Your task to perform on an android device: change notification settings in the gmail app Image 0: 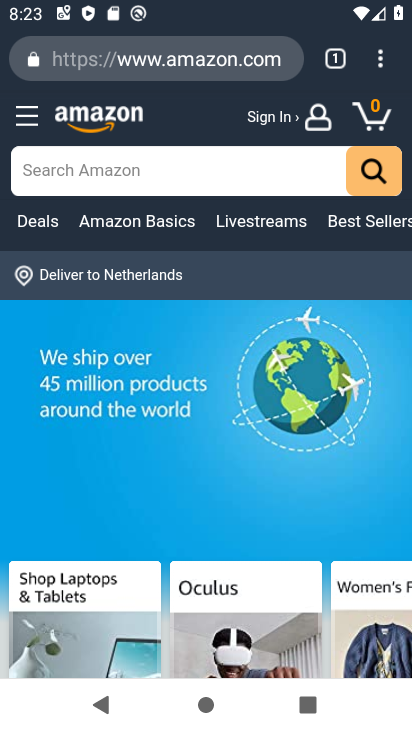
Step 0: drag from (279, 605) to (273, 439)
Your task to perform on an android device: change notification settings in the gmail app Image 1: 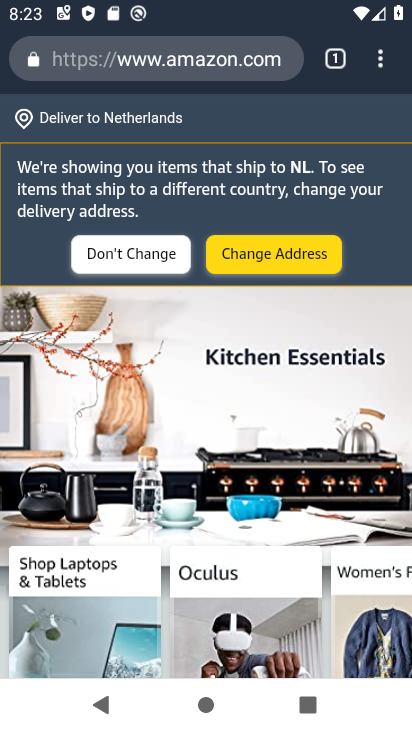
Step 1: press home button
Your task to perform on an android device: change notification settings in the gmail app Image 2: 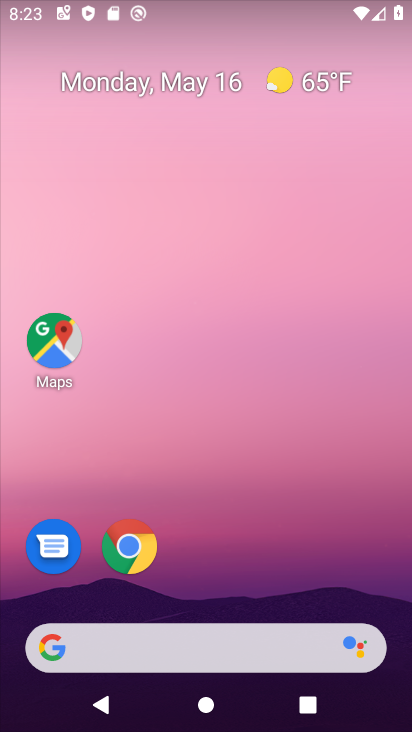
Step 2: drag from (319, 452) to (319, 95)
Your task to perform on an android device: change notification settings in the gmail app Image 3: 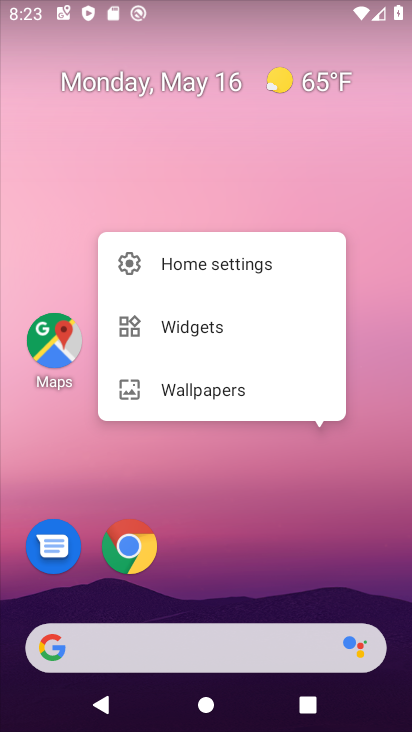
Step 3: click (283, 555)
Your task to perform on an android device: change notification settings in the gmail app Image 4: 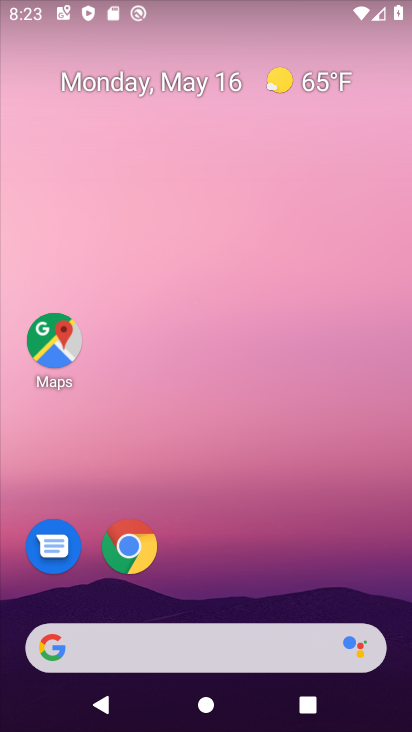
Step 4: drag from (283, 555) to (320, 15)
Your task to perform on an android device: change notification settings in the gmail app Image 5: 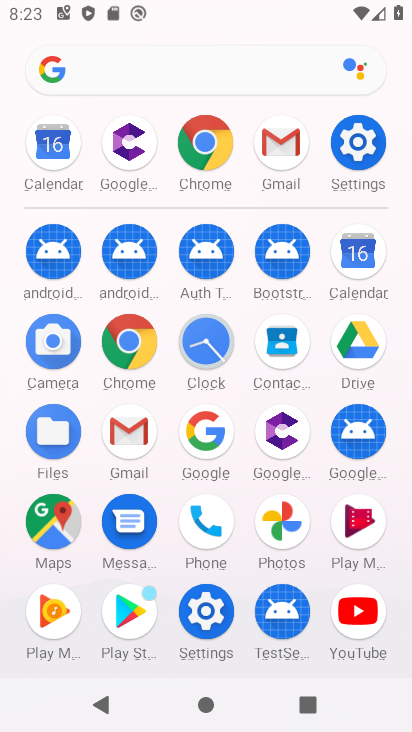
Step 5: click (346, 145)
Your task to perform on an android device: change notification settings in the gmail app Image 6: 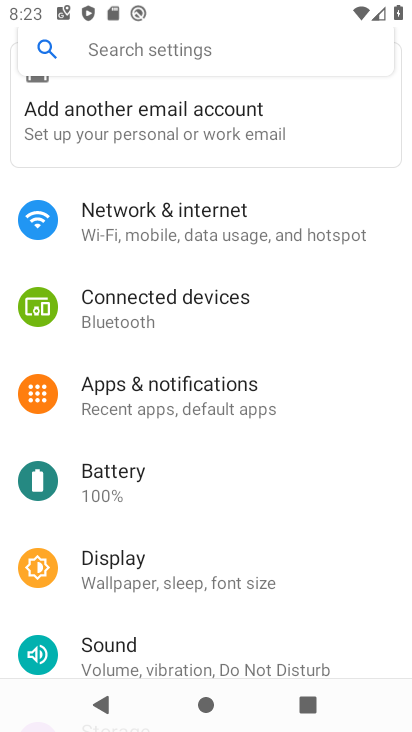
Step 6: press home button
Your task to perform on an android device: change notification settings in the gmail app Image 7: 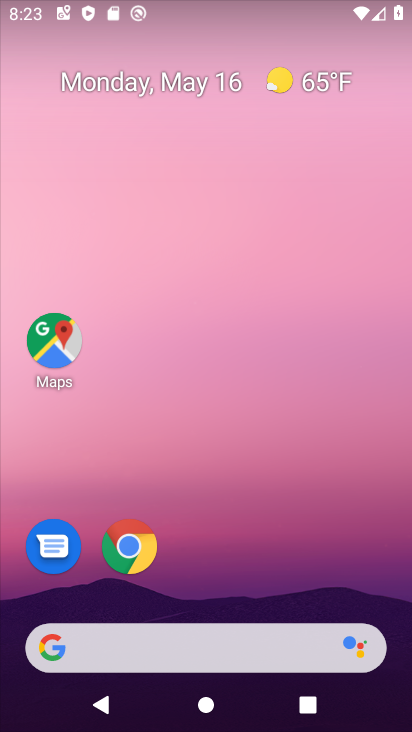
Step 7: drag from (287, 577) to (282, 149)
Your task to perform on an android device: change notification settings in the gmail app Image 8: 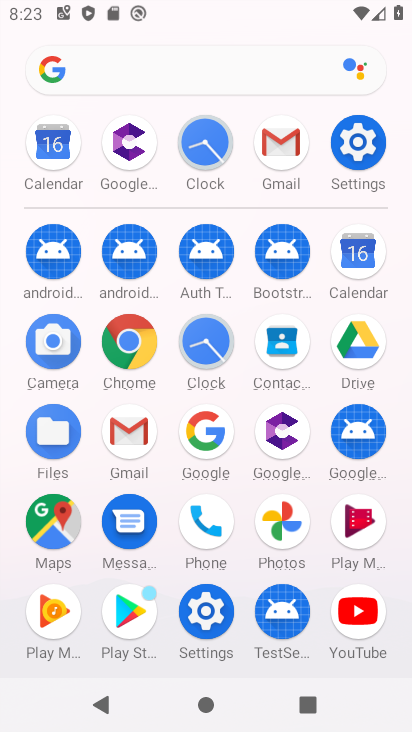
Step 8: click (282, 181)
Your task to perform on an android device: change notification settings in the gmail app Image 9: 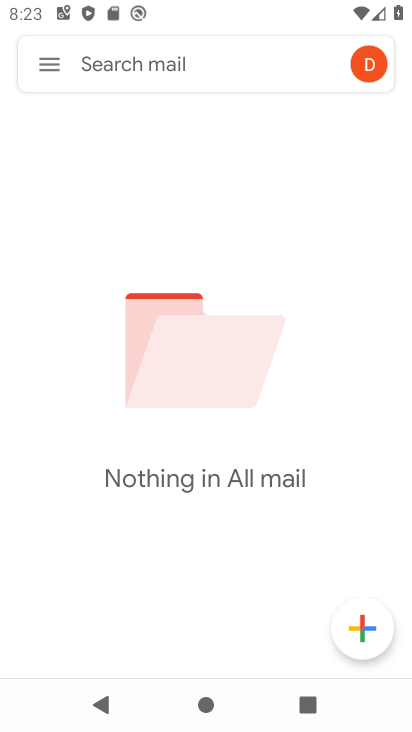
Step 9: click (61, 65)
Your task to perform on an android device: change notification settings in the gmail app Image 10: 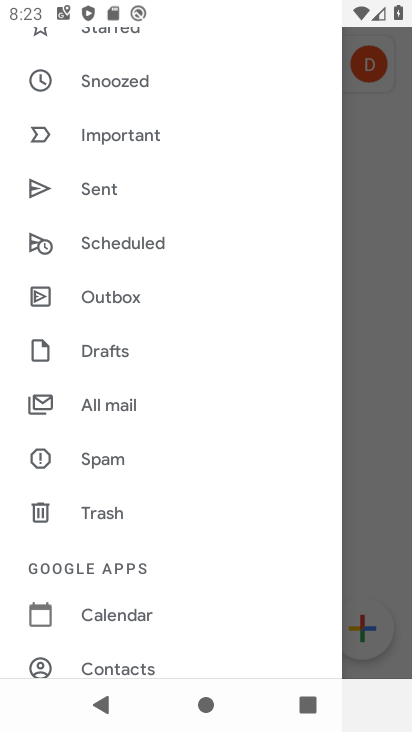
Step 10: drag from (174, 641) to (202, 342)
Your task to perform on an android device: change notification settings in the gmail app Image 11: 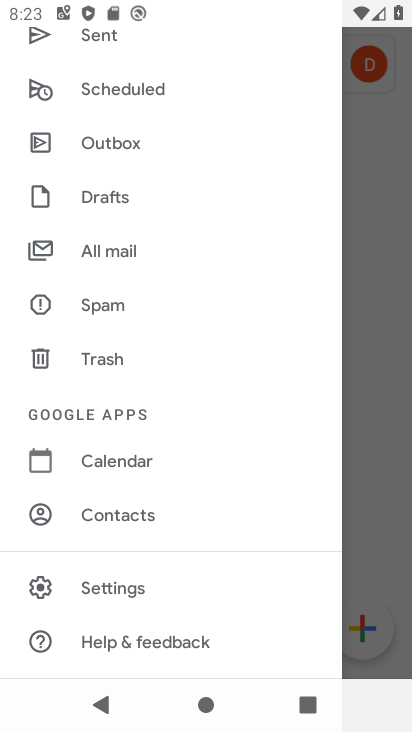
Step 11: click (194, 596)
Your task to perform on an android device: change notification settings in the gmail app Image 12: 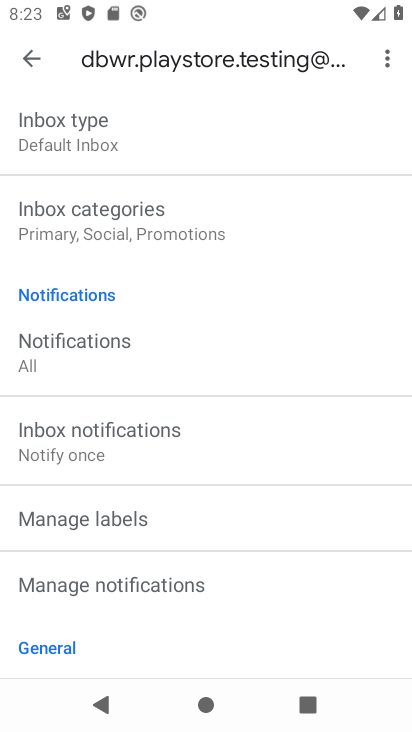
Step 12: click (163, 562)
Your task to perform on an android device: change notification settings in the gmail app Image 13: 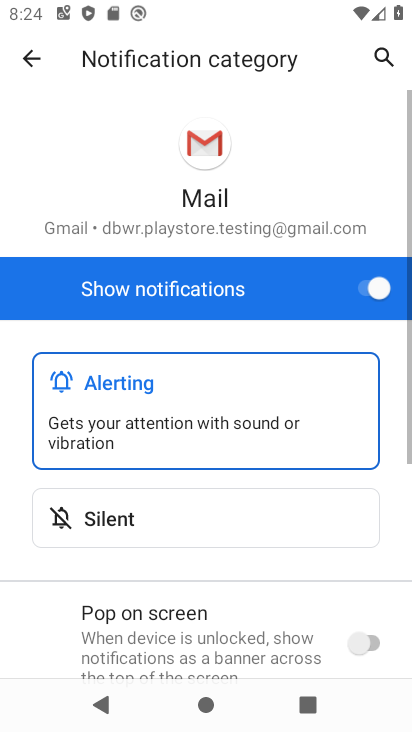
Step 13: click (250, 280)
Your task to perform on an android device: change notification settings in the gmail app Image 14: 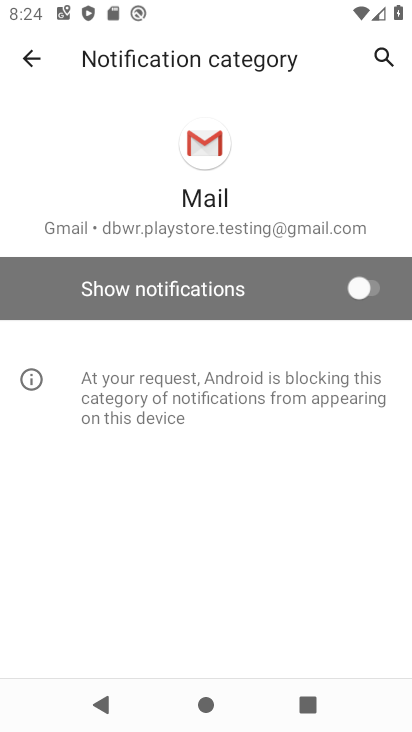
Step 14: task complete